Your task to perform on an android device: remove spam from my inbox in the gmail app Image 0: 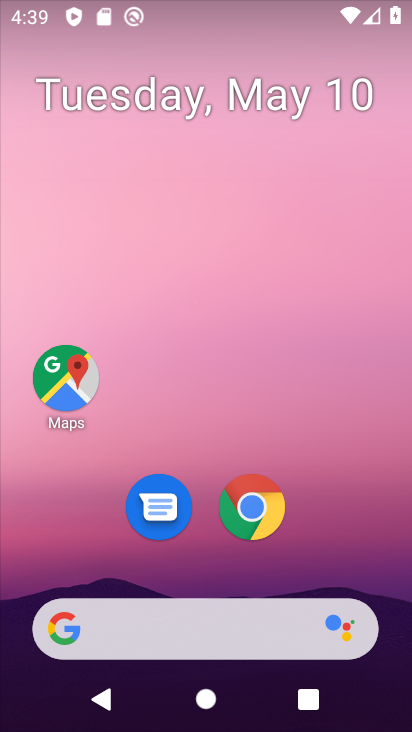
Step 0: drag from (222, 505) to (268, 66)
Your task to perform on an android device: remove spam from my inbox in the gmail app Image 1: 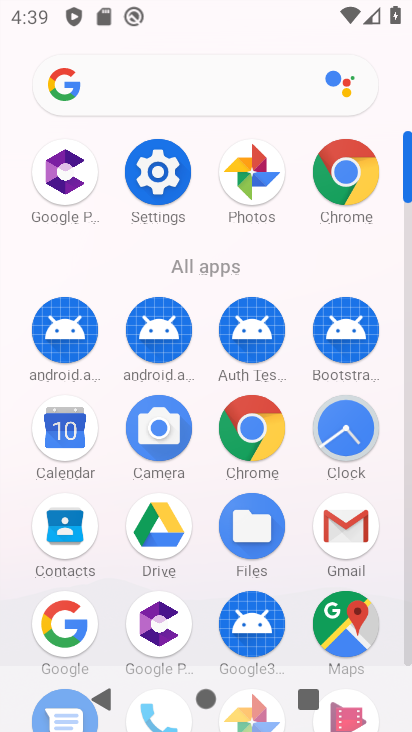
Step 1: click (361, 540)
Your task to perform on an android device: remove spam from my inbox in the gmail app Image 2: 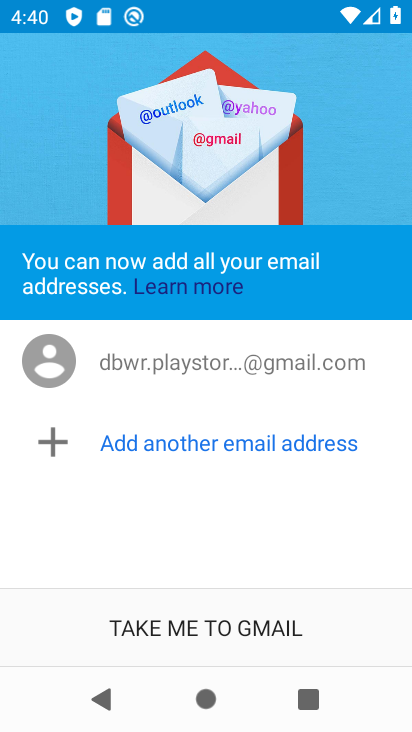
Step 2: click (270, 640)
Your task to perform on an android device: remove spam from my inbox in the gmail app Image 3: 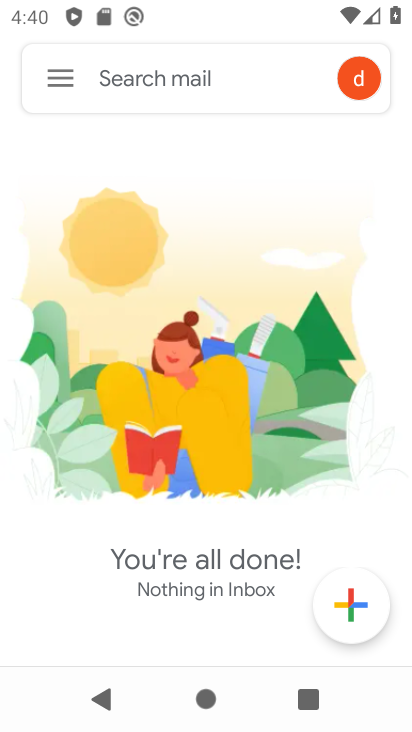
Step 3: click (77, 76)
Your task to perform on an android device: remove spam from my inbox in the gmail app Image 4: 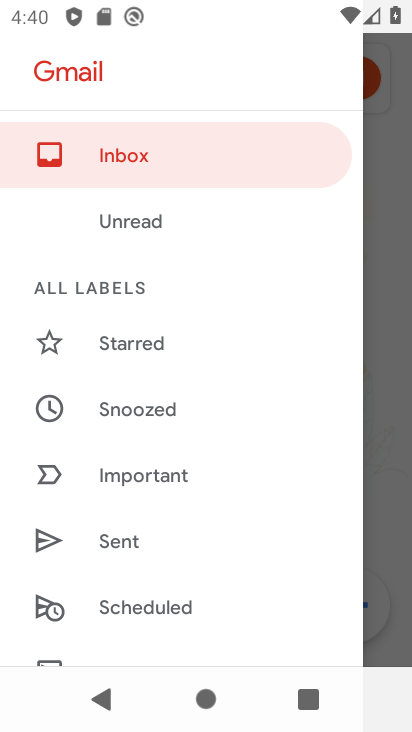
Step 4: drag from (148, 556) to (215, 198)
Your task to perform on an android device: remove spam from my inbox in the gmail app Image 5: 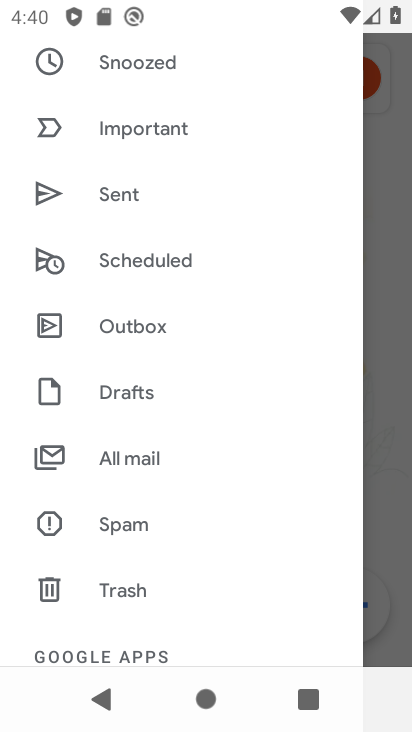
Step 5: click (117, 536)
Your task to perform on an android device: remove spam from my inbox in the gmail app Image 6: 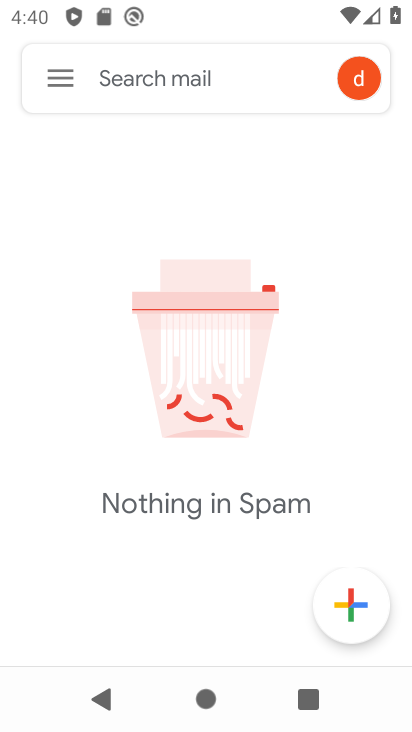
Step 6: task complete